Your task to perform on an android device: delete location history Image 0: 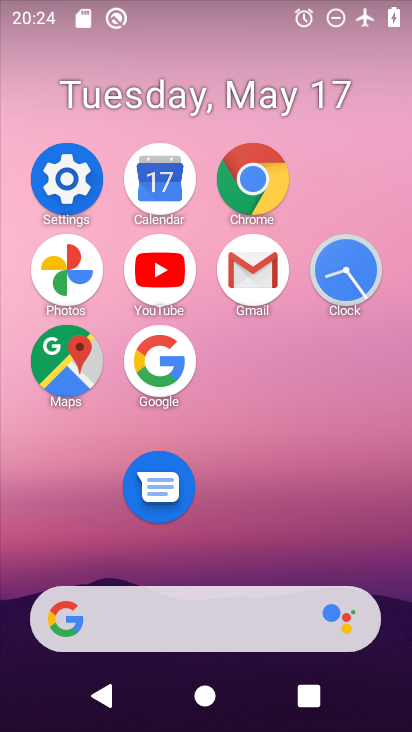
Step 0: click (86, 173)
Your task to perform on an android device: delete location history Image 1: 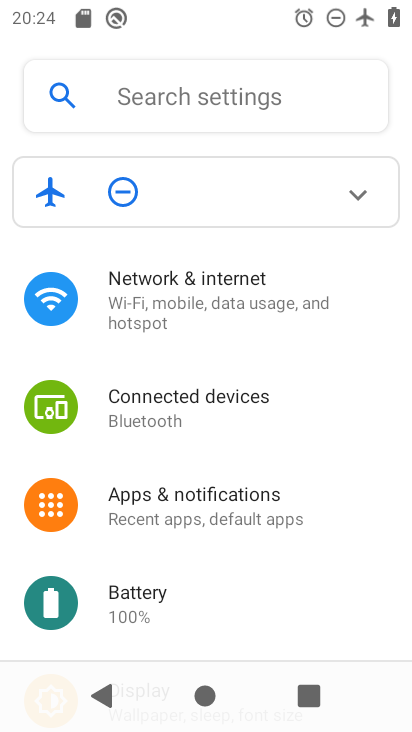
Step 1: drag from (245, 574) to (237, 180)
Your task to perform on an android device: delete location history Image 2: 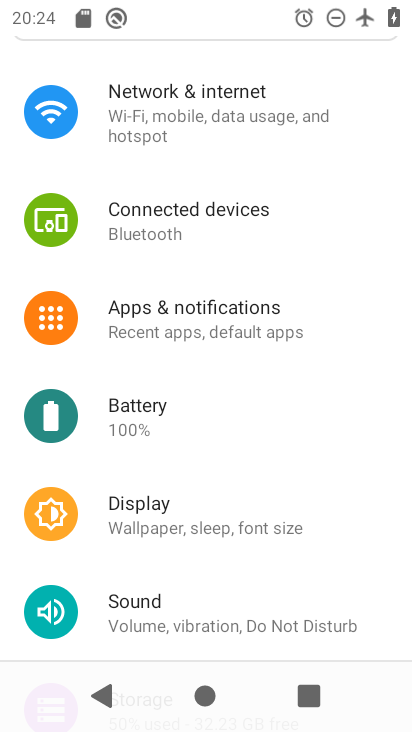
Step 2: drag from (188, 536) to (200, 210)
Your task to perform on an android device: delete location history Image 3: 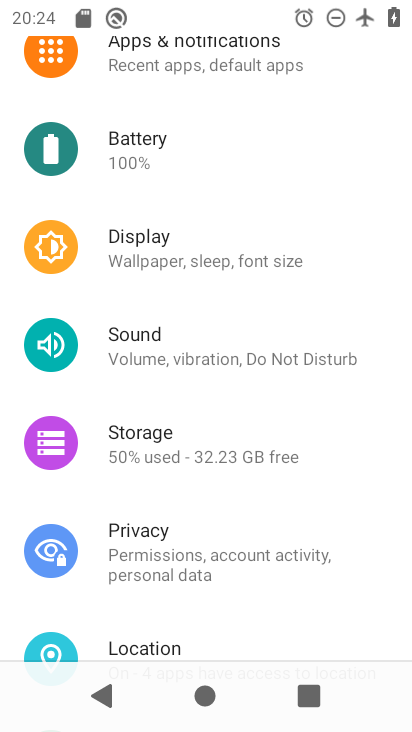
Step 3: click (174, 641)
Your task to perform on an android device: delete location history Image 4: 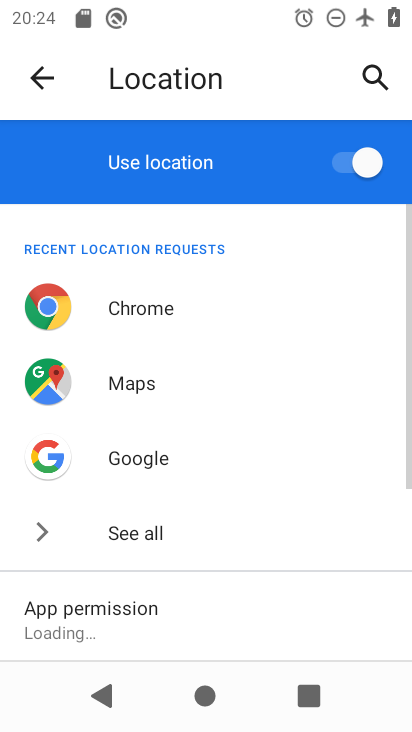
Step 4: drag from (236, 453) to (228, 85)
Your task to perform on an android device: delete location history Image 5: 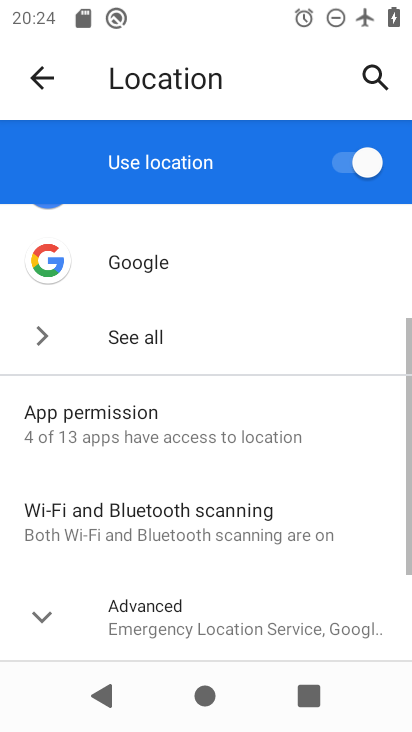
Step 5: click (178, 639)
Your task to perform on an android device: delete location history Image 6: 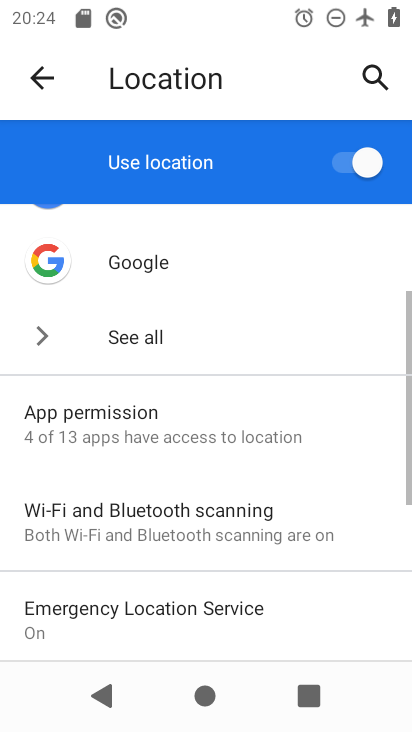
Step 6: drag from (184, 628) to (205, 215)
Your task to perform on an android device: delete location history Image 7: 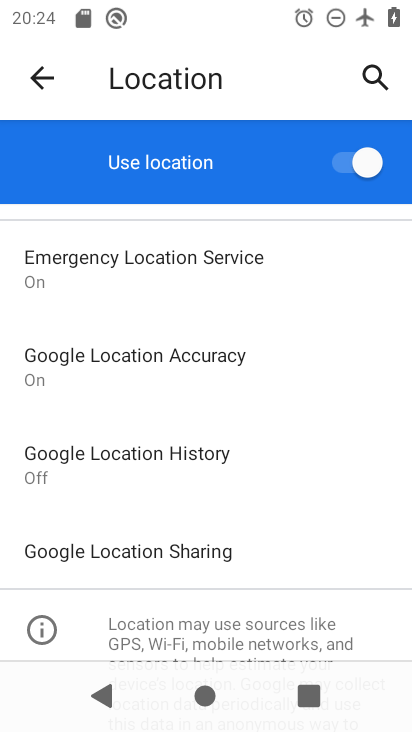
Step 7: click (211, 461)
Your task to perform on an android device: delete location history Image 8: 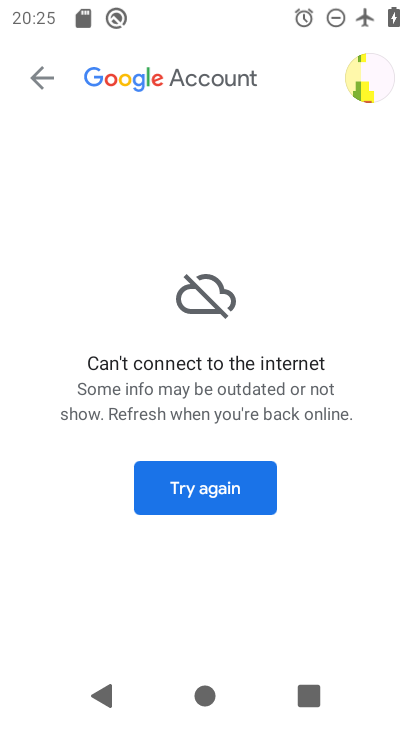
Step 8: task complete